Your task to perform on an android device: make emails show in primary in the gmail app Image 0: 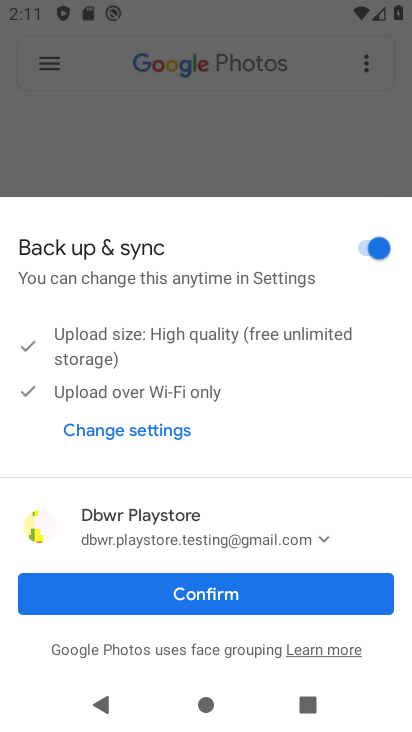
Step 0: press home button
Your task to perform on an android device: make emails show in primary in the gmail app Image 1: 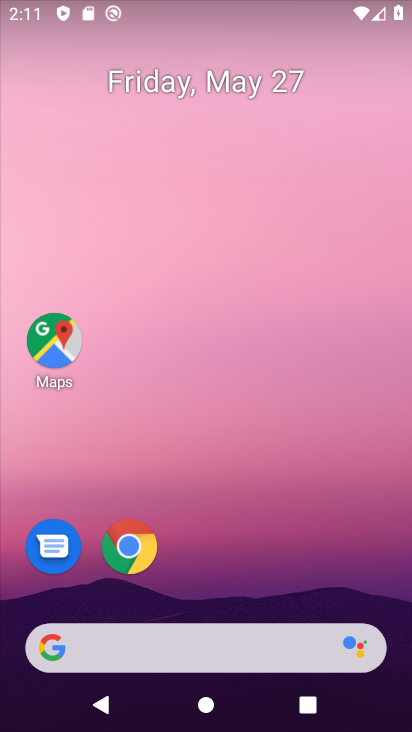
Step 1: drag from (276, 596) to (182, 9)
Your task to perform on an android device: make emails show in primary in the gmail app Image 2: 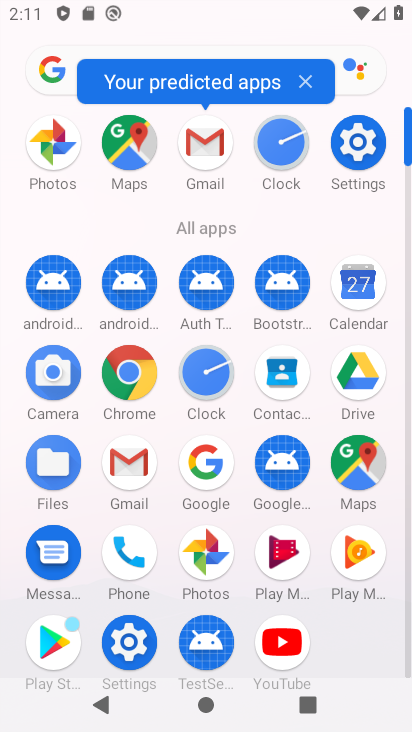
Step 2: click (120, 480)
Your task to perform on an android device: make emails show in primary in the gmail app Image 3: 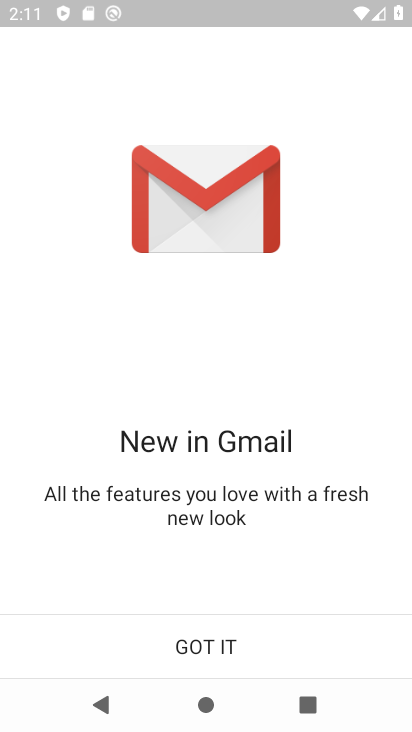
Step 3: click (195, 654)
Your task to perform on an android device: make emails show in primary in the gmail app Image 4: 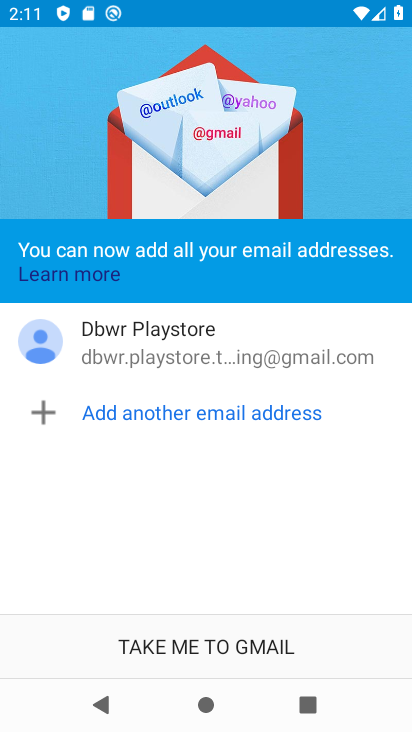
Step 4: click (198, 632)
Your task to perform on an android device: make emails show in primary in the gmail app Image 5: 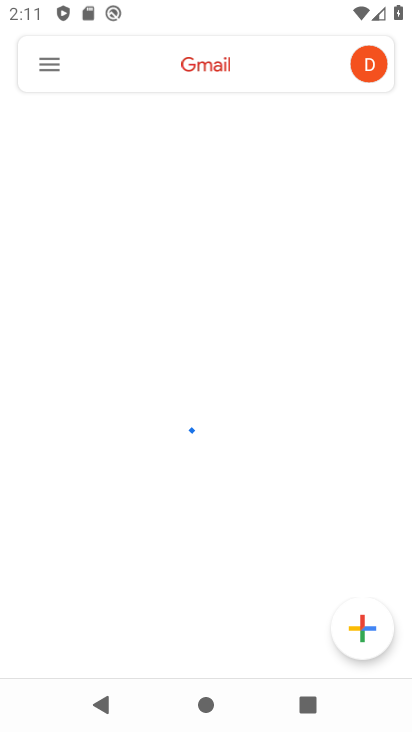
Step 5: click (54, 76)
Your task to perform on an android device: make emails show in primary in the gmail app Image 6: 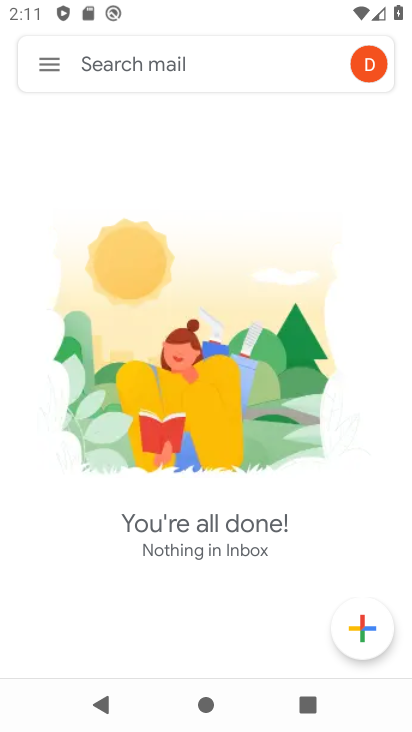
Step 6: click (37, 49)
Your task to perform on an android device: make emails show in primary in the gmail app Image 7: 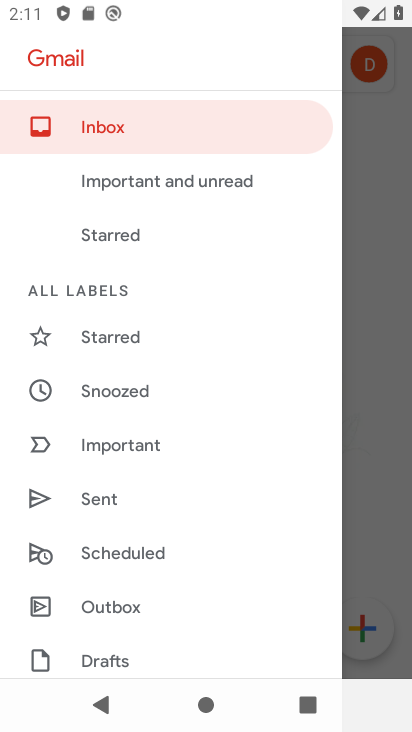
Step 7: drag from (79, 533) to (29, 135)
Your task to perform on an android device: make emails show in primary in the gmail app Image 8: 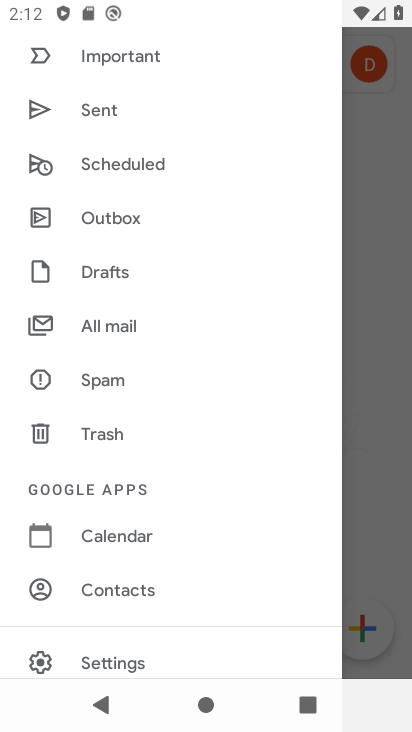
Step 8: click (74, 653)
Your task to perform on an android device: make emails show in primary in the gmail app Image 9: 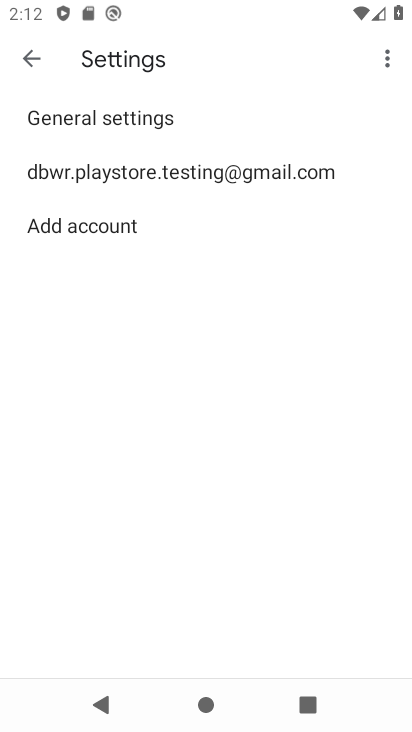
Step 9: click (124, 162)
Your task to perform on an android device: make emails show in primary in the gmail app Image 10: 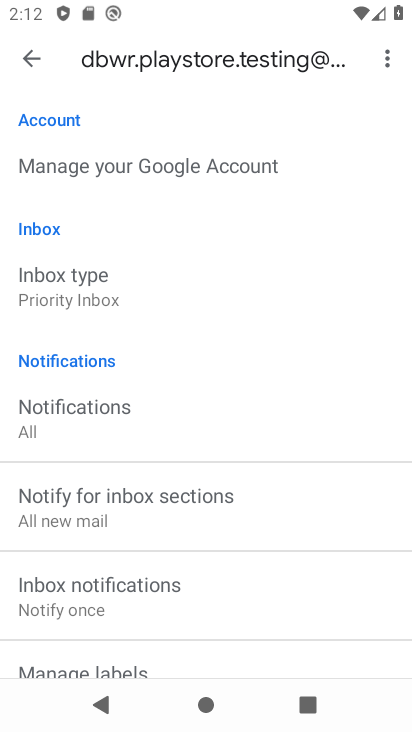
Step 10: click (101, 272)
Your task to perform on an android device: make emails show in primary in the gmail app Image 11: 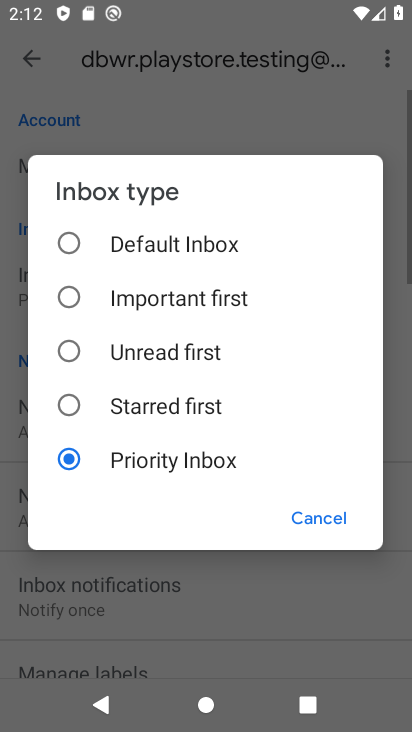
Step 11: click (102, 230)
Your task to perform on an android device: make emails show in primary in the gmail app Image 12: 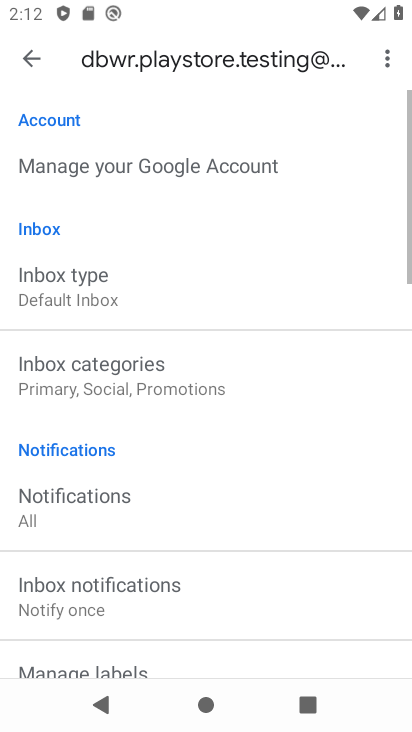
Step 12: click (90, 385)
Your task to perform on an android device: make emails show in primary in the gmail app Image 13: 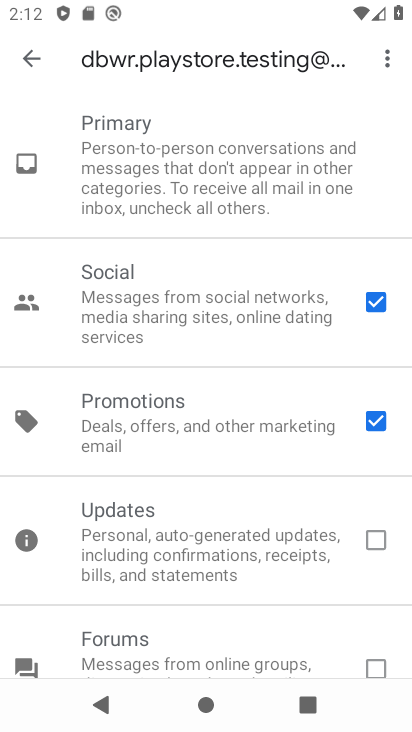
Step 13: click (379, 308)
Your task to perform on an android device: make emails show in primary in the gmail app Image 14: 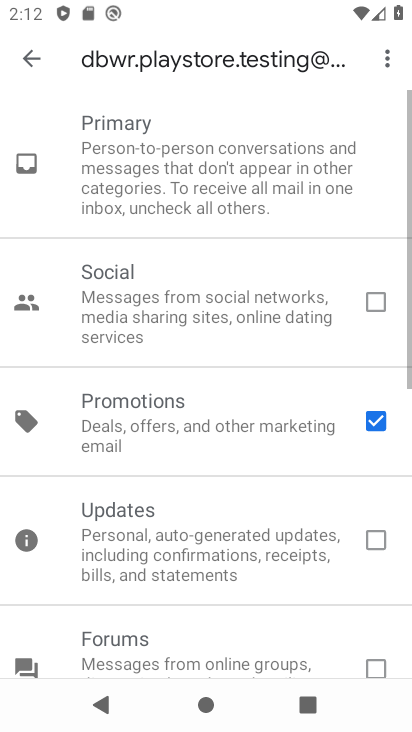
Step 14: click (375, 421)
Your task to perform on an android device: make emails show in primary in the gmail app Image 15: 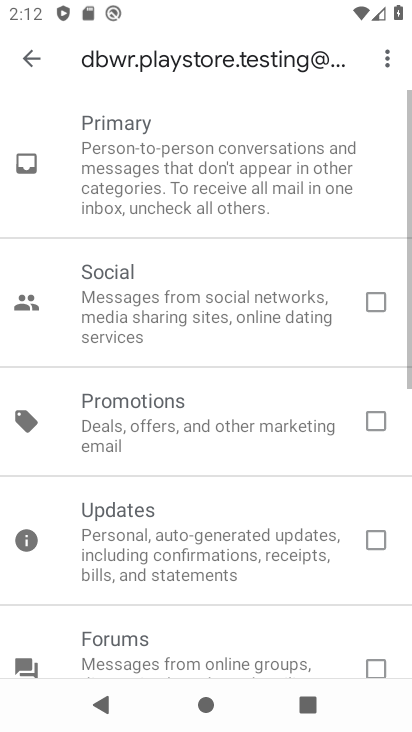
Step 15: click (30, 60)
Your task to perform on an android device: make emails show in primary in the gmail app Image 16: 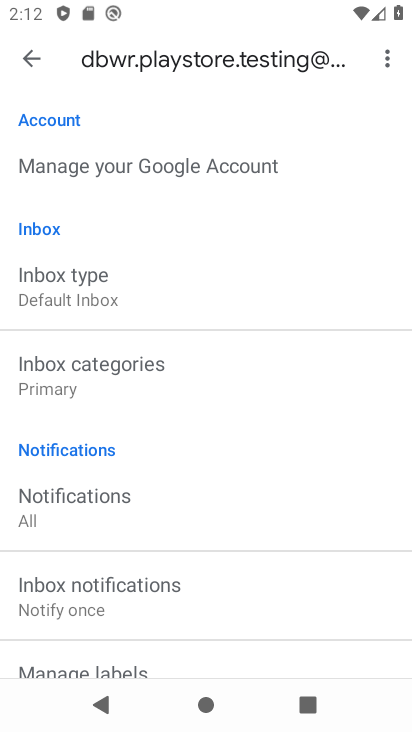
Step 16: task complete